Your task to perform on an android device: Go to network settings Image 0: 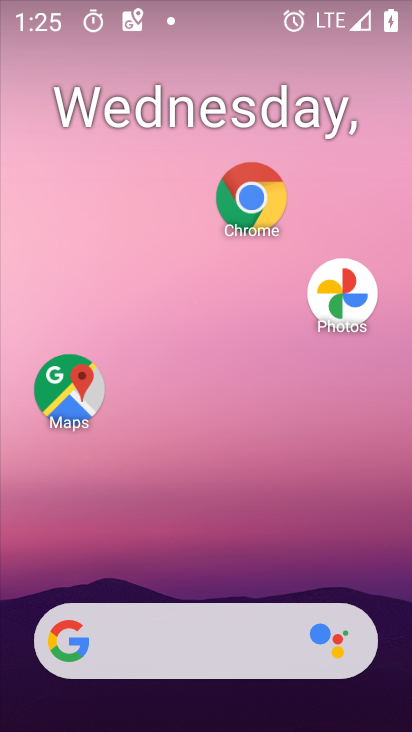
Step 0: drag from (197, 549) to (348, 175)
Your task to perform on an android device: Go to network settings Image 1: 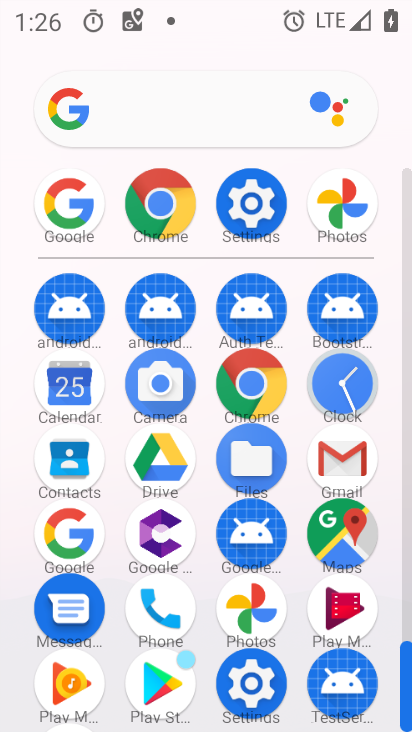
Step 1: click (266, 206)
Your task to perform on an android device: Go to network settings Image 2: 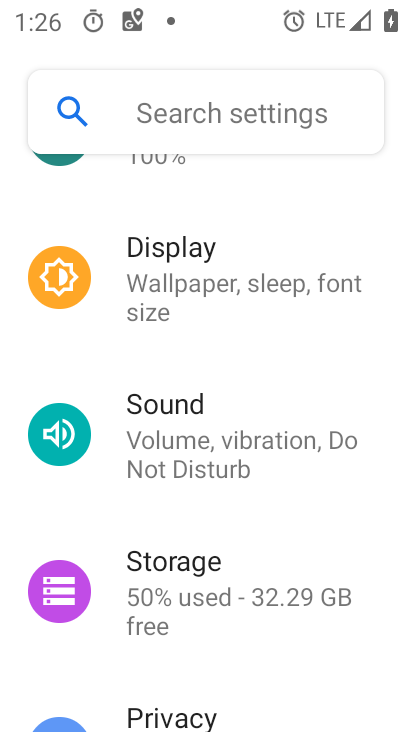
Step 2: drag from (266, 207) to (219, 456)
Your task to perform on an android device: Go to network settings Image 3: 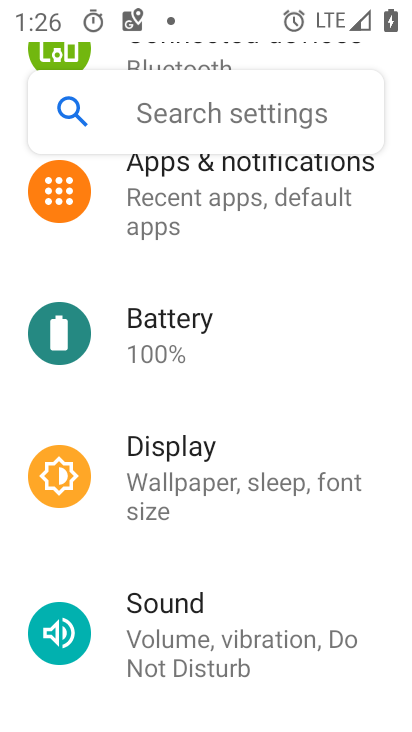
Step 3: drag from (228, 353) to (193, 532)
Your task to perform on an android device: Go to network settings Image 4: 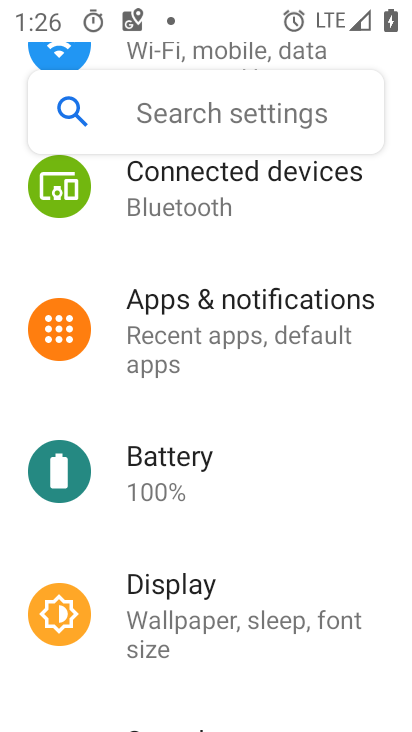
Step 4: drag from (191, 344) to (167, 494)
Your task to perform on an android device: Go to network settings Image 5: 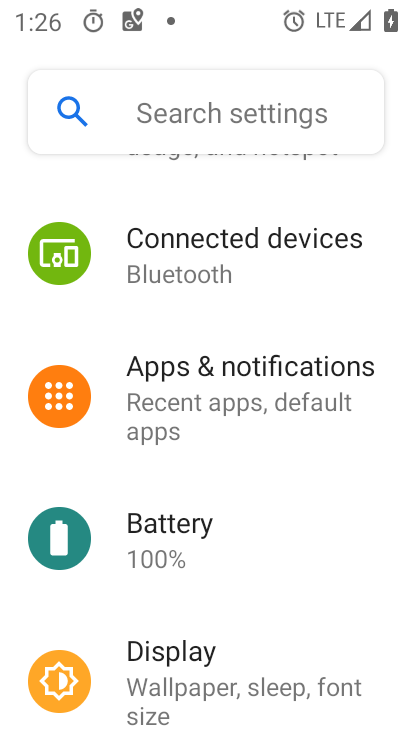
Step 5: drag from (238, 278) to (152, 693)
Your task to perform on an android device: Go to network settings Image 6: 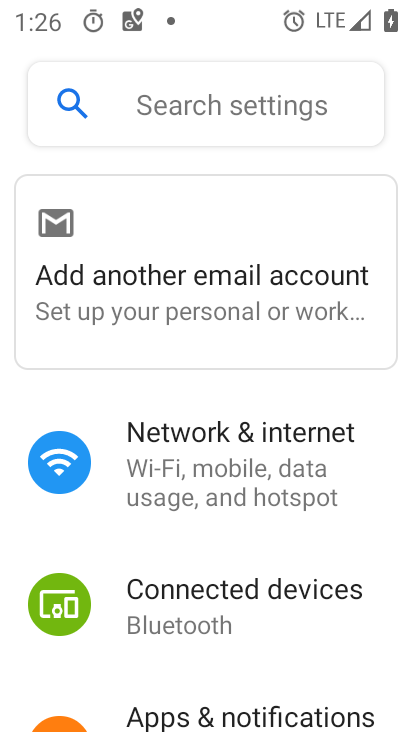
Step 6: click (278, 471)
Your task to perform on an android device: Go to network settings Image 7: 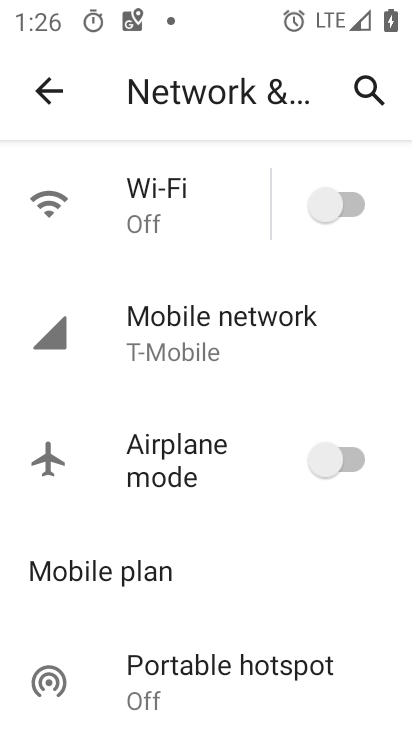
Step 7: click (157, 327)
Your task to perform on an android device: Go to network settings Image 8: 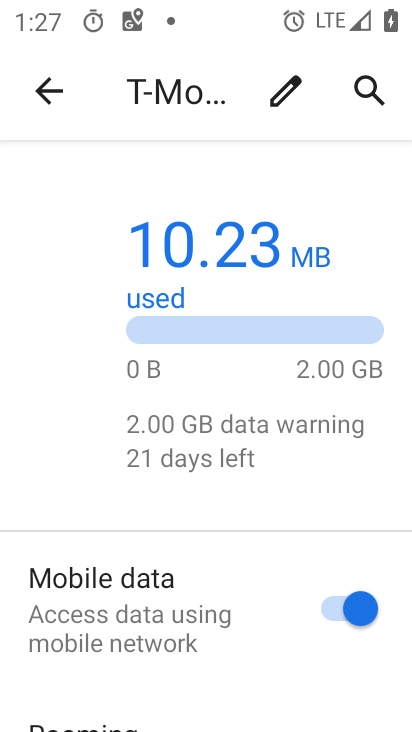
Step 8: task complete